Your task to perform on an android device: Open Android settings Image 0: 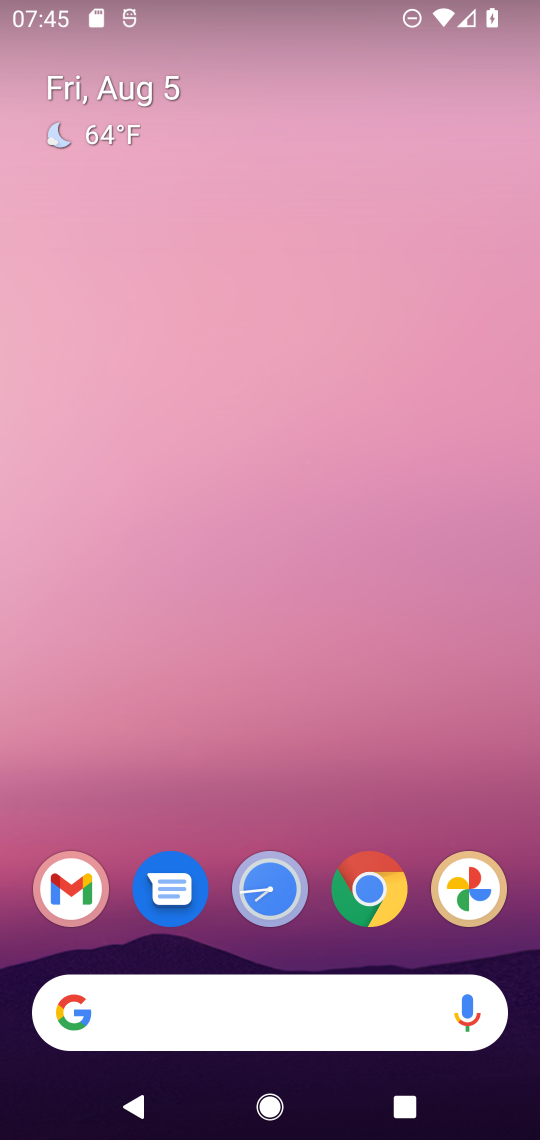
Step 0: drag from (249, 983) to (269, 376)
Your task to perform on an android device: Open Android settings Image 1: 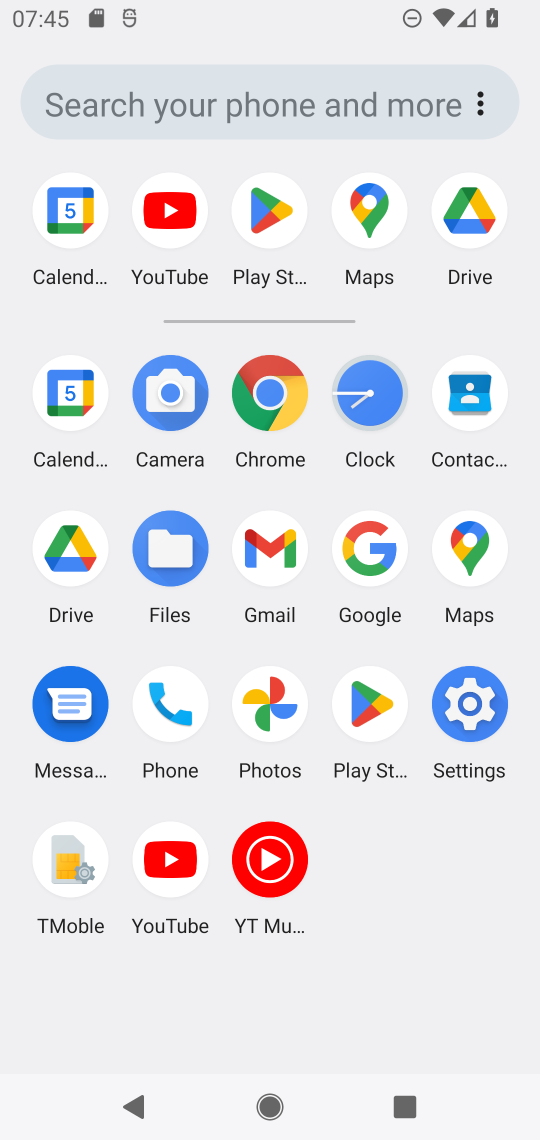
Step 1: click (461, 698)
Your task to perform on an android device: Open Android settings Image 2: 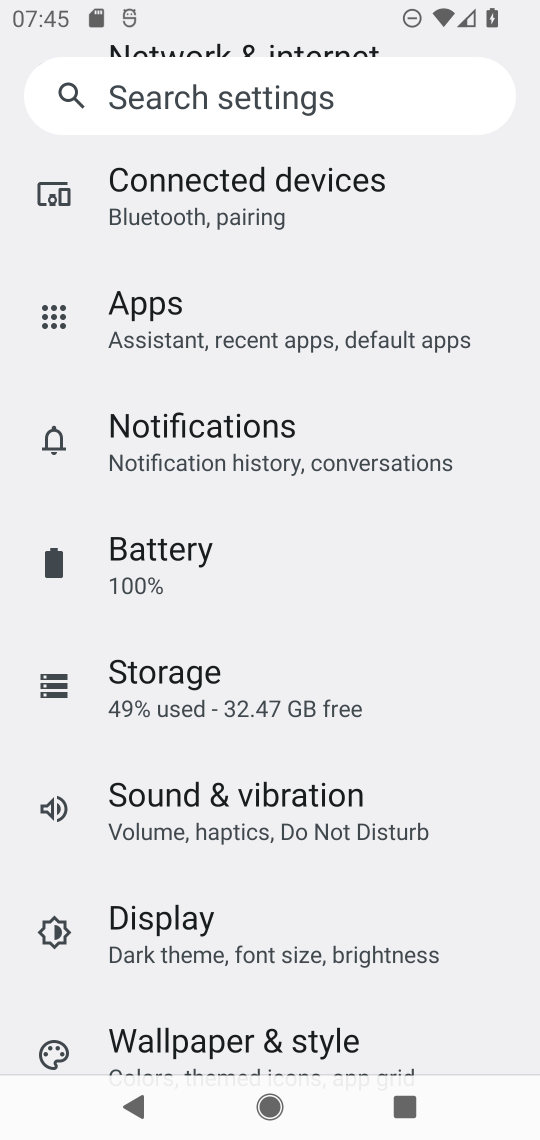
Step 2: task complete